Your task to perform on an android device: Open Google Chrome and open the bookmarks view Image 0: 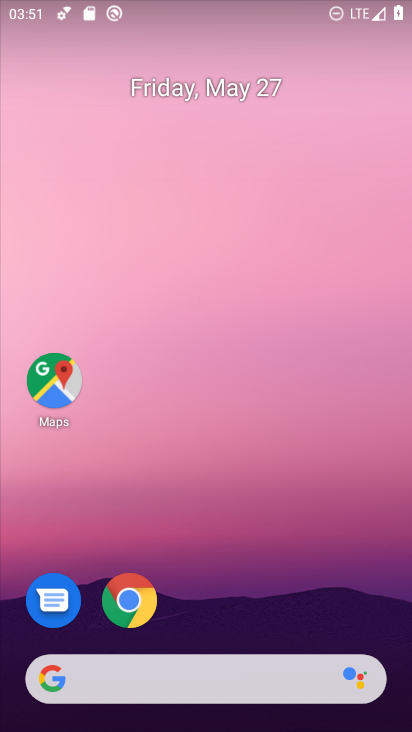
Step 0: click (130, 596)
Your task to perform on an android device: Open Google Chrome and open the bookmarks view Image 1: 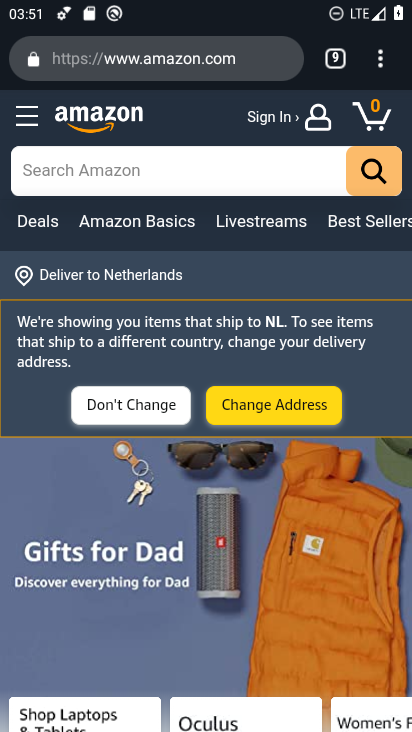
Step 1: click (381, 66)
Your task to perform on an android device: Open Google Chrome and open the bookmarks view Image 2: 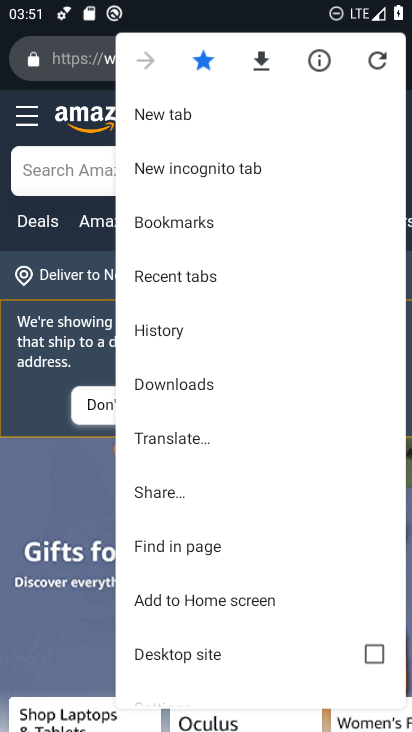
Step 2: click (186, 220)
Your task to perform on an android device: Open Google Chrome and open the bookmarks view Image 3: 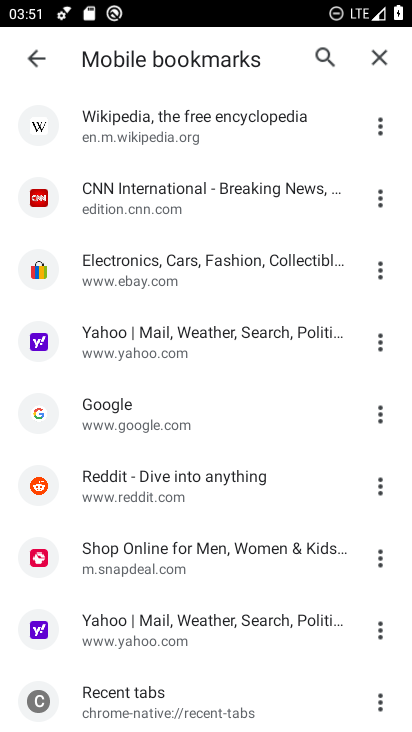
Step 3: task complete